Your task to perform on an android device: Open Android settings Image 0: 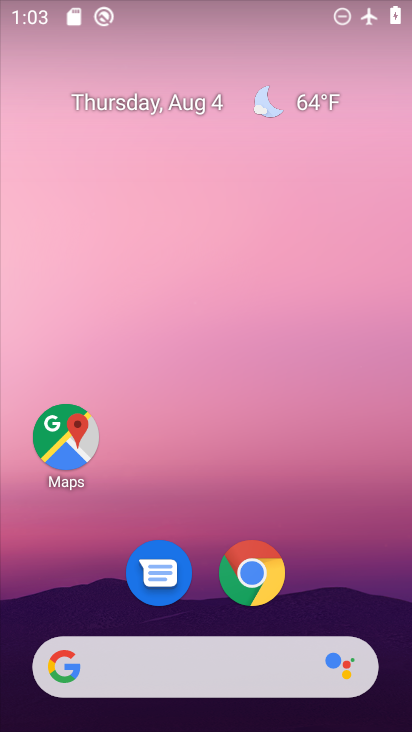
Step 0: drag from (380, 538) to (253, 79)
Your task to perform on an android device: Open Android settings Image 1: 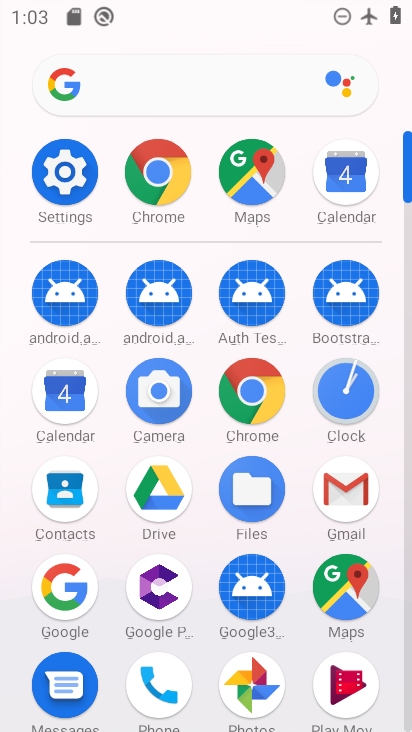
Step 1: click (73, 165)
Your task to perform on an android device: Open Android settings Image 2: 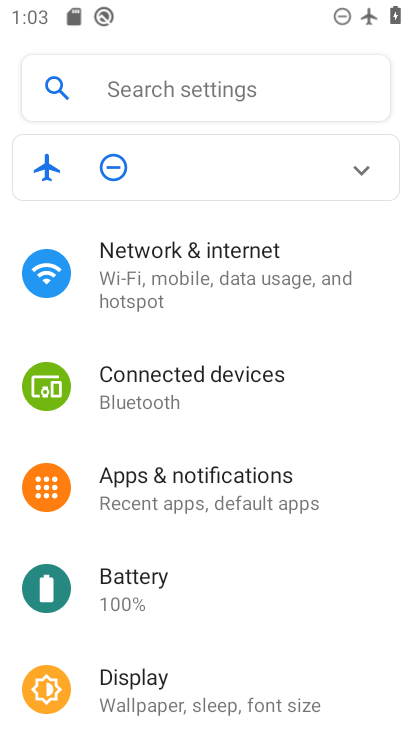
Step 2: task complete